Your task to perform on an android device: turn on showing notifications on the lock screen Image 0: 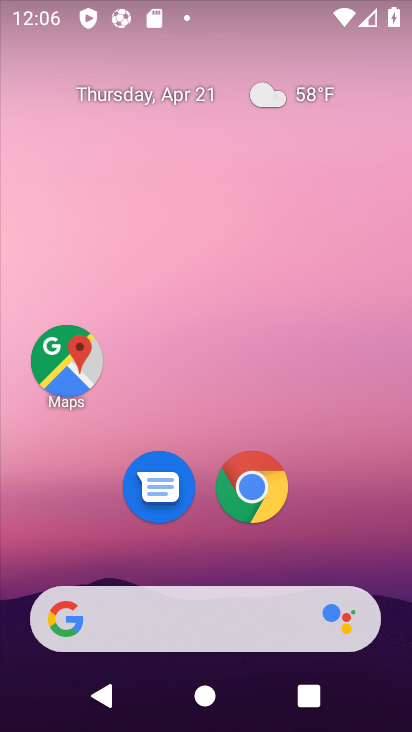
Step 0: drag from (384, 581) to (410, 73)
Your task to perform on an android device: turn on showing notifications on the lock screen Image 1: 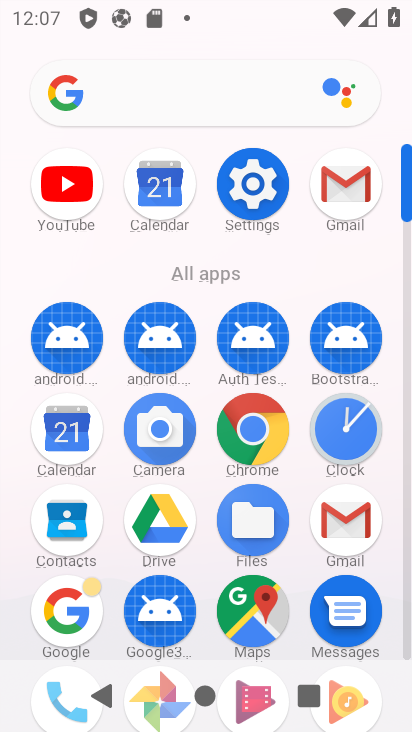
Step 1: click (252, 183)
Your task to perform on an android device: turn on showing notifications on the lock screen Image 2: 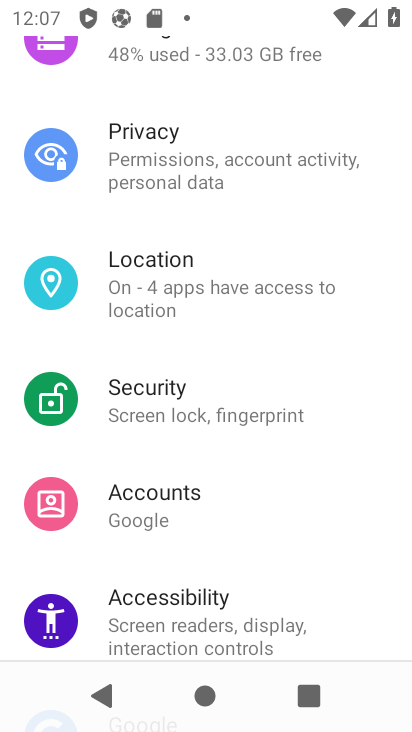
Step 2: drag from (391, 153) to (300, 463)
Your task to perform on an android device: turn on showing notifications on the lock screen Image 3: 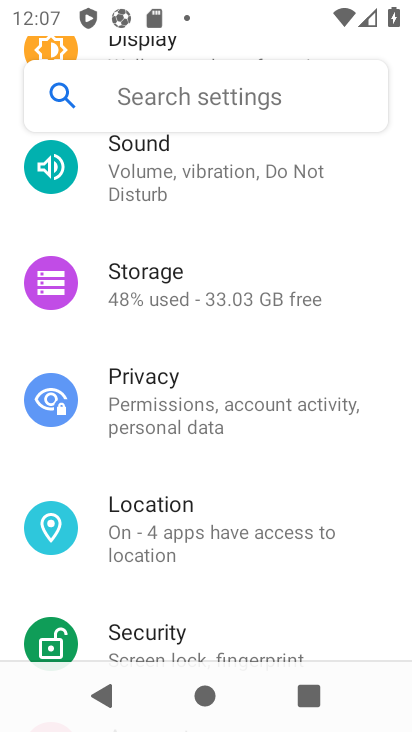
Step 3: drag from (353, 240) to (310, 537)
Your task to perform on an android device: turn on showing notifications on the lock screen Image 4: 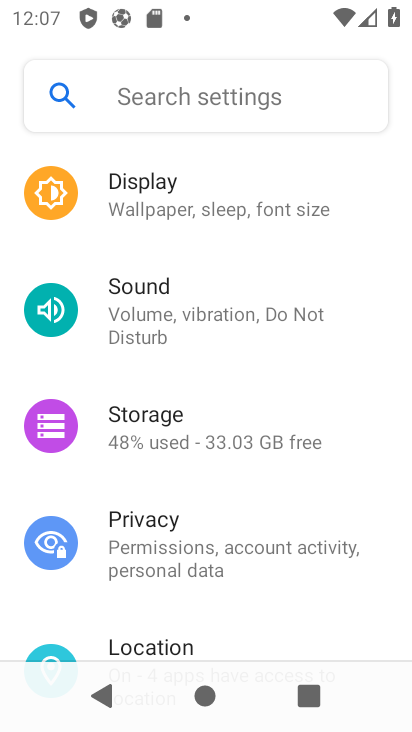
Step 4: drag from (259, 215) to (235, 472)
Your task to perform on an android device: turn on showing notifications on the lock screen Image 5: 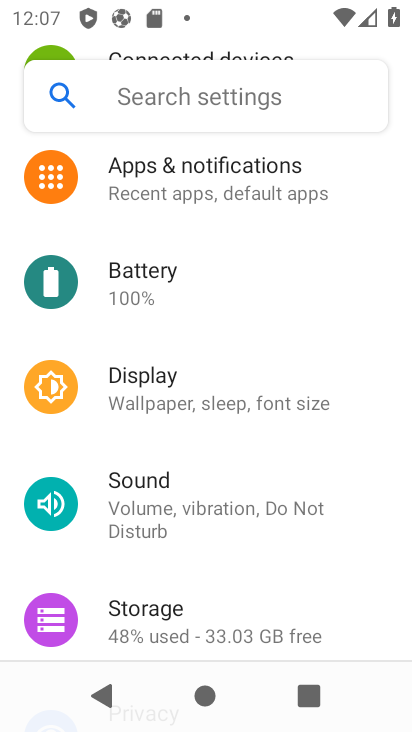
Step 5: click (203, 182)
Your task to perform on an android device: turn on showing notifications on the lock screen Image 6: 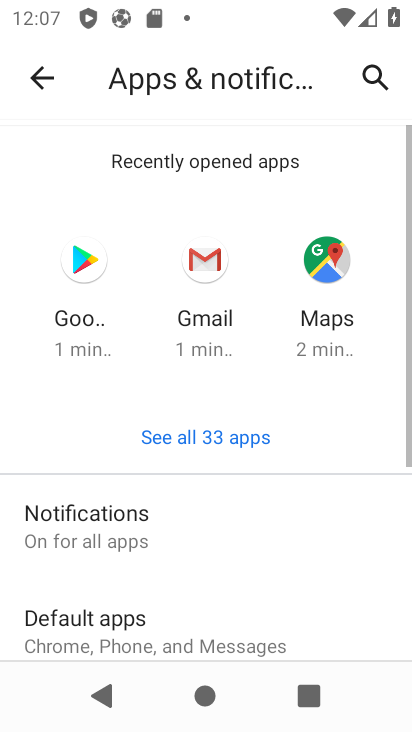
Step 6: click (94, 512)
Your task to perform on an android device: turn on showing notifications on the lock screen Image 7: 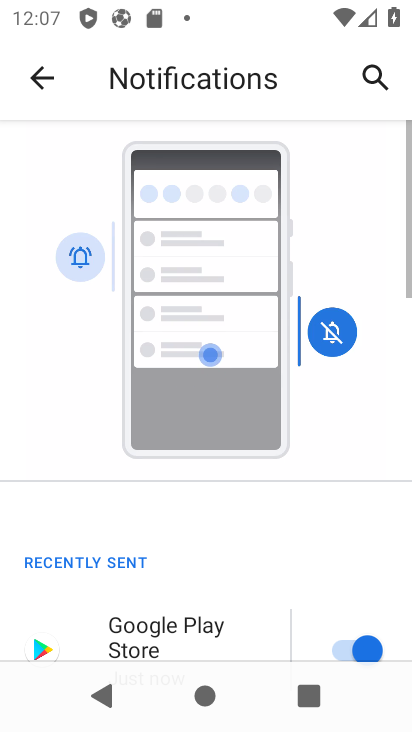
Step 7: drag from (279, 565) to (239, 34)
Your task to perform on an android device: turn on showing notifications on the lock screen Image 8: 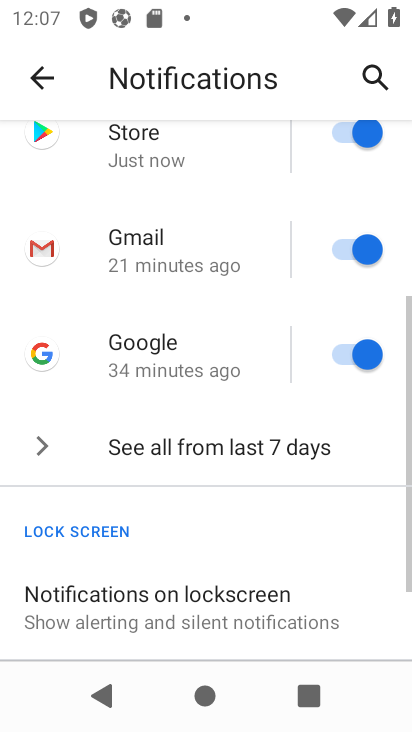
Step 8: drag from (146, 491) to (157, 57)
Your task to perform on an android device: turn on showing notifications on the lock screen Image 9: 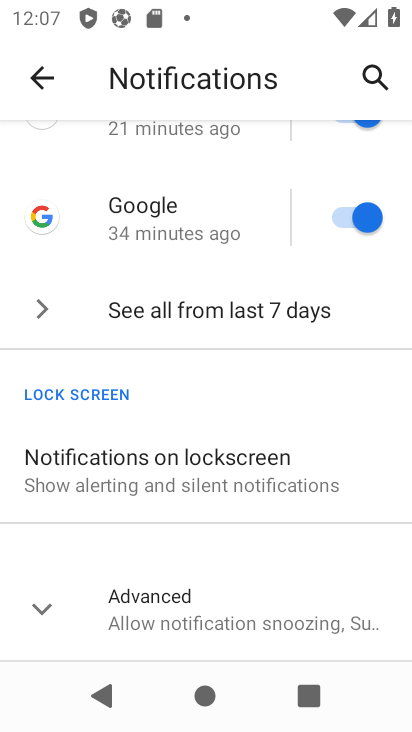
Step 9: click (132, 475)
Your task to perform on an android device: turn on showing notifications on the lock screen Image 10: 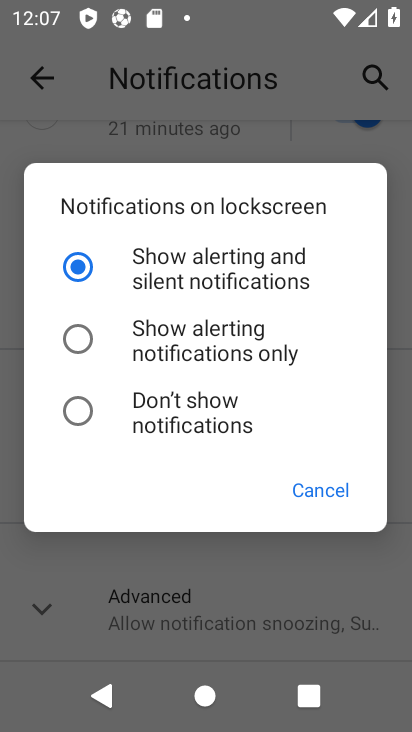
Step 10: task complete